Your task to perform on an android device: Open internet settings Image 0: 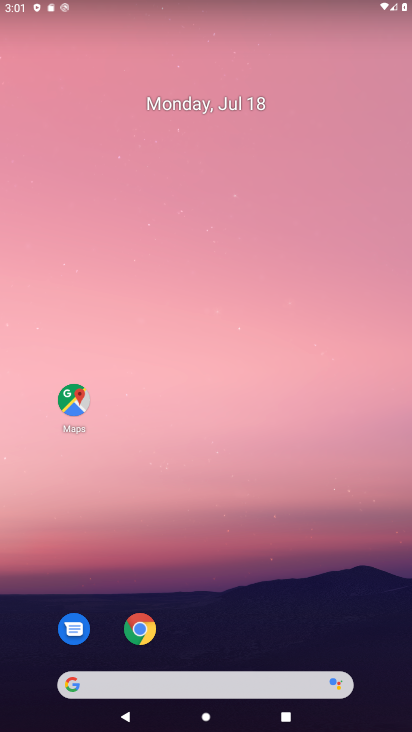
Step 0: drag from (240, 569) to (262, 2)
Your task to perform on an android device: Open internet settings Image 1: 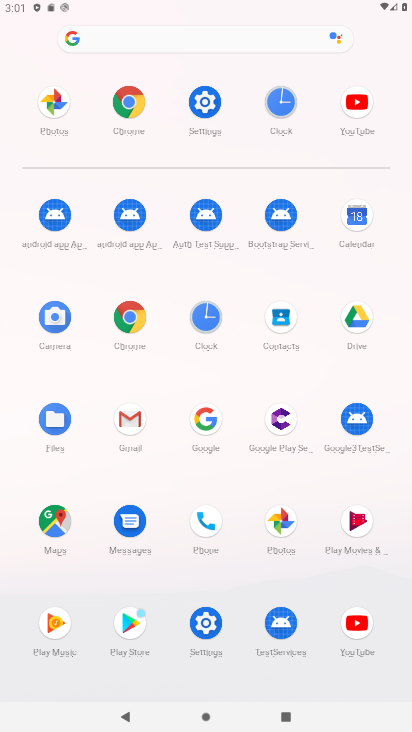
Step 1: click (212, 644)
Your task to perform on an android device: Open internet settings Image 2: 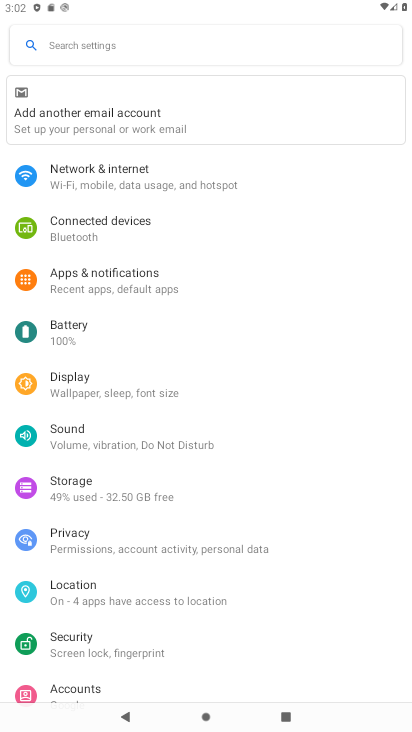
Step 2: click (143, 168)
Your task to perform on an android device: Open internet settings Image 3: 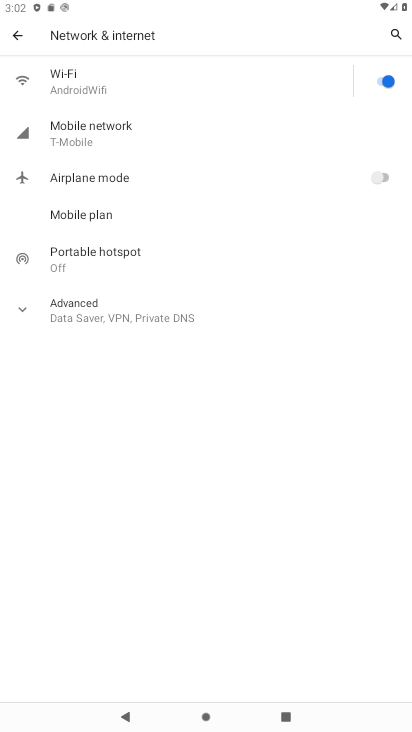
Step 3: task complete